Your task to perform on an android device: turn off location history Image 0: 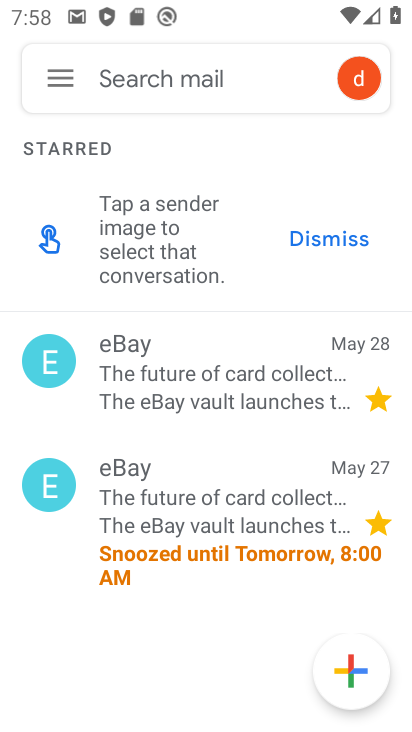
Step 0: press home button
Your task to perform on an android device: turn off location history Image 1: 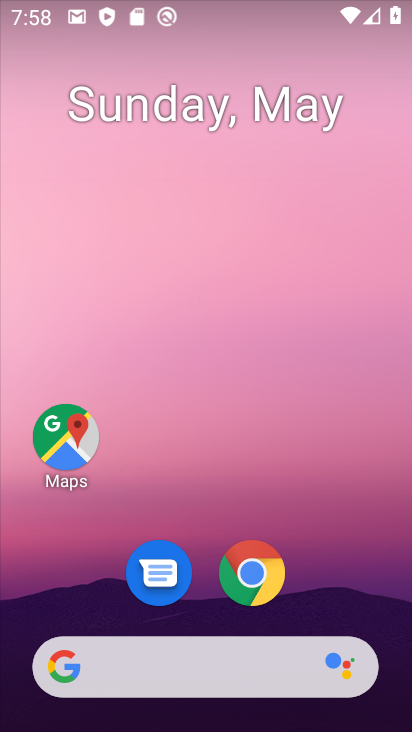
Step 1: drag from (205, 469) to (212, 12)
Your task to perform on an android device: turn off location history Image 2: 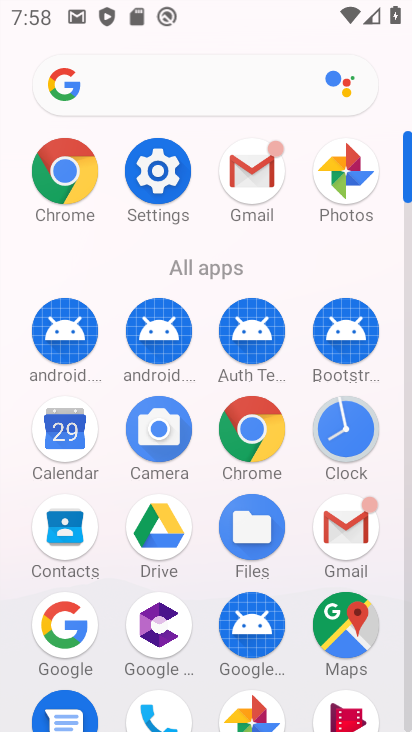
Step 2: click (165, 185)
Your task to perform on an android device: turn off location history Image 3: 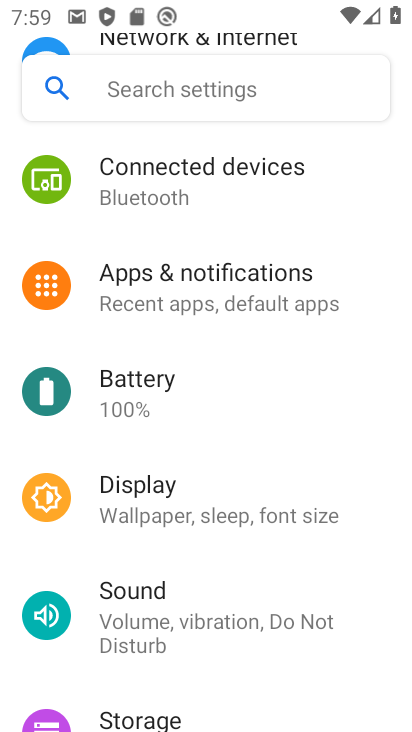
Step 3: drag from (231, 570) to (232, 157)
Your task to perform on an android device: turn off location history Image 4: 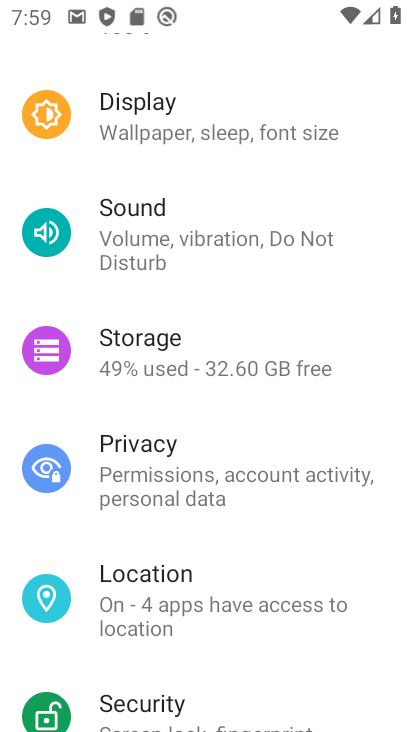
Step 4: click (201, 598)
Your task to perform on an android device: turn off location history Image 5: 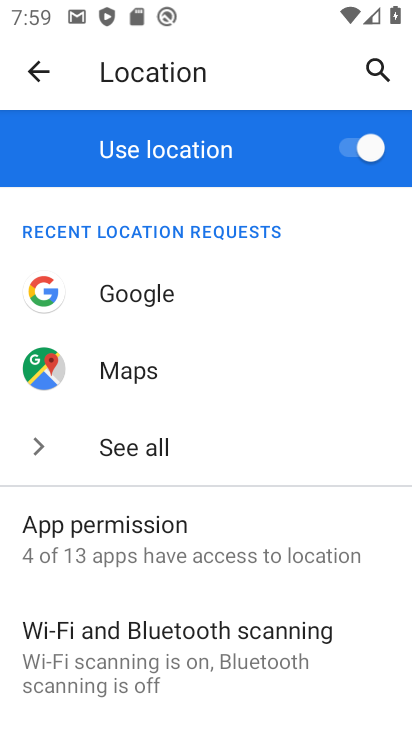
Step 5: drag from (237, 482) to (244, 222)
Your task to perform on an android device: turn off location history Image 6: 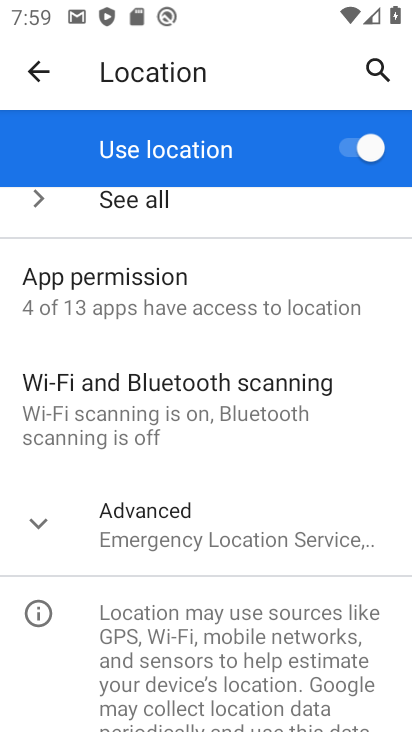
Step 6: click (39, 515)
Your task to perform on an android device: turn off location history Image 7: 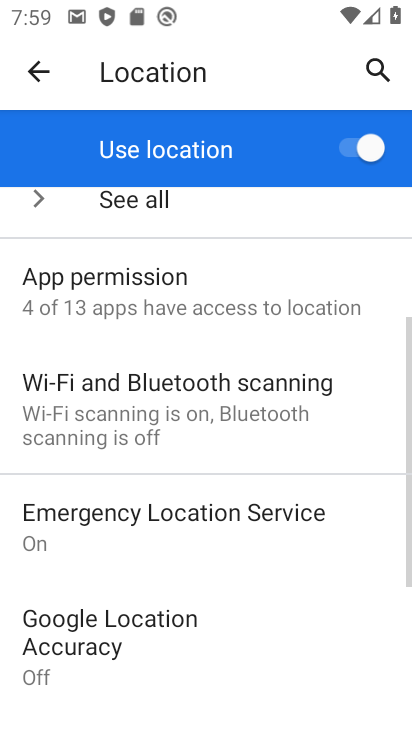
Step 7: drag from (215, 599) to (246, 269)
Your task to perform on an android device: turn off location history Image 8: 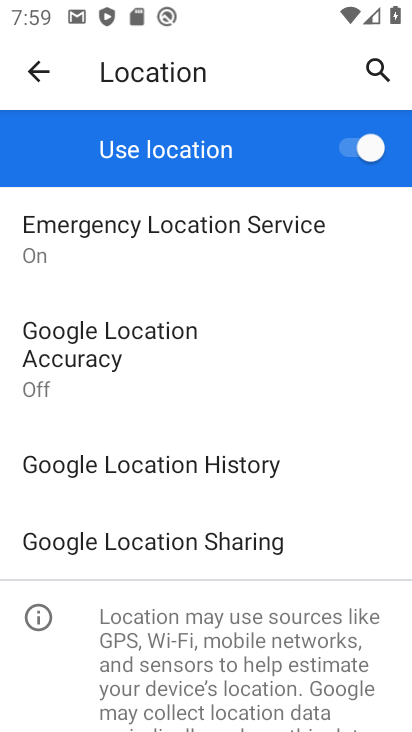
Step 8: click (213, 477)
Your task to perform on an android device: turn off location history Image 9: 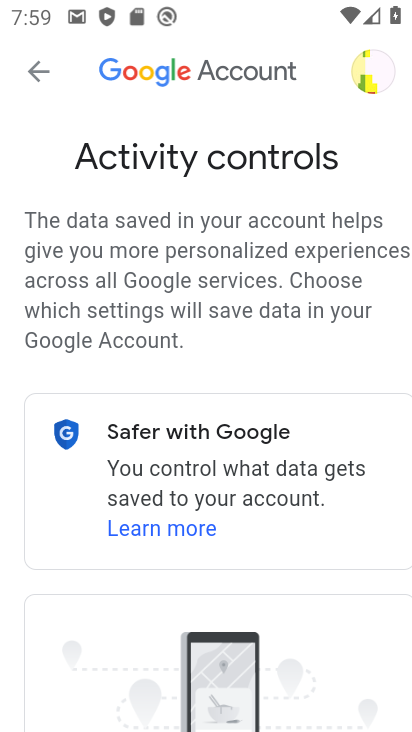
Step 9: task complete